Your task to perform on an android device: See recent photos Image 0: 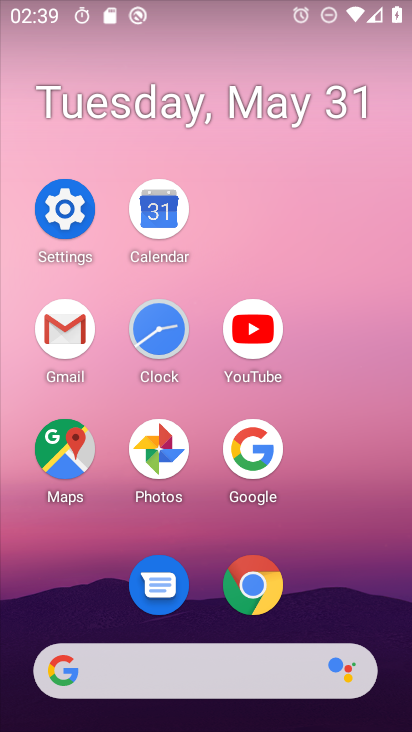
Step 0: click (158, 451)
Your task to perform on an android device: See recent photos Image 1: 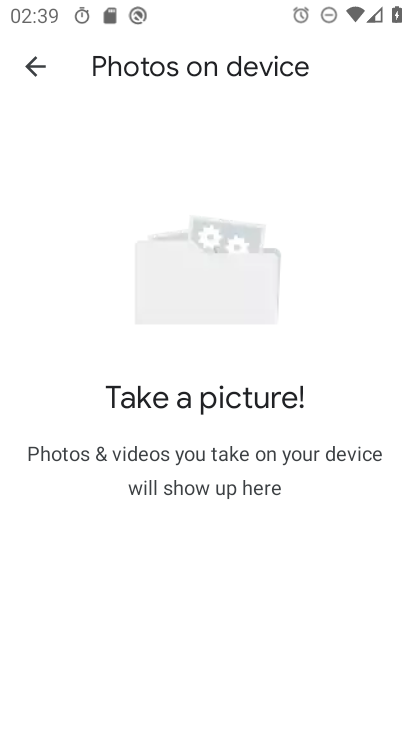
Step 1: click (28, 48)
Your task to perform on an android device: See recent photos Image 2: 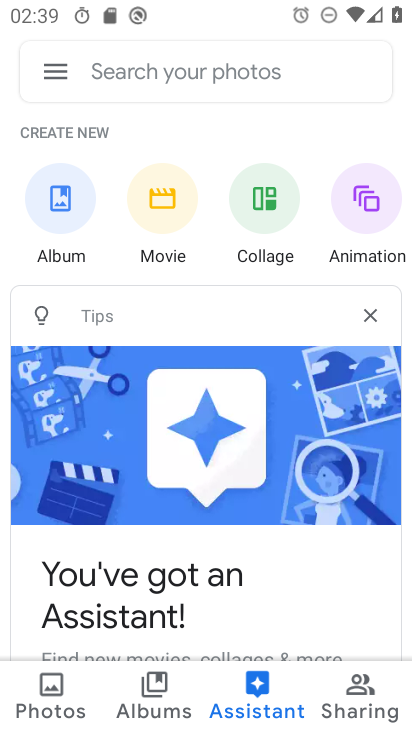
Step 2: click (61, 698)
Your task to perform on an android device: See recent photos Image 3: 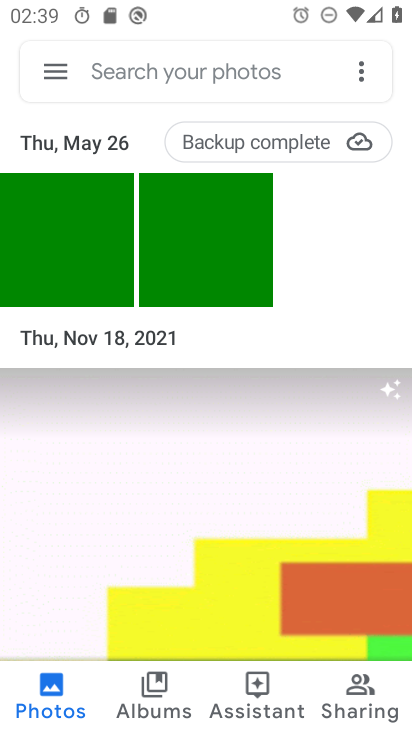
Step 3: task complete